Your task to perform on an android device: turn on location history Image 0: 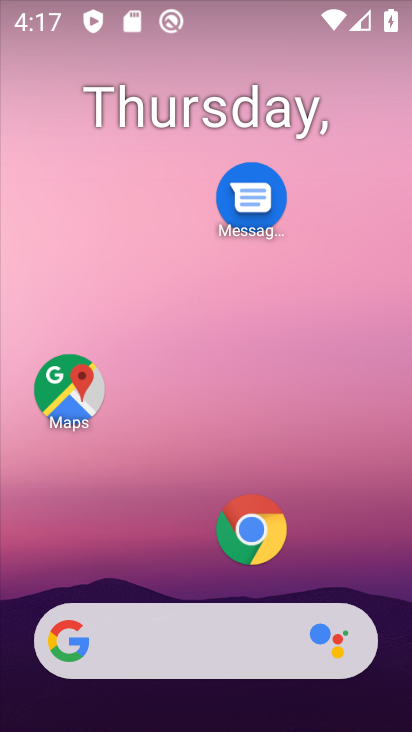
Step 0: drag from (114, 527) to (202, 128)
Your task to perform on an android device: turn on location history Image 1: 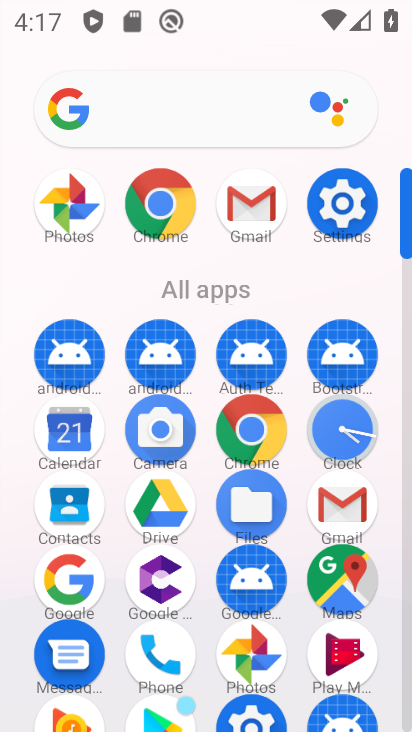
Step 1: click (336, 196)
Your task to perform on an android device: turn on location history Image 2: 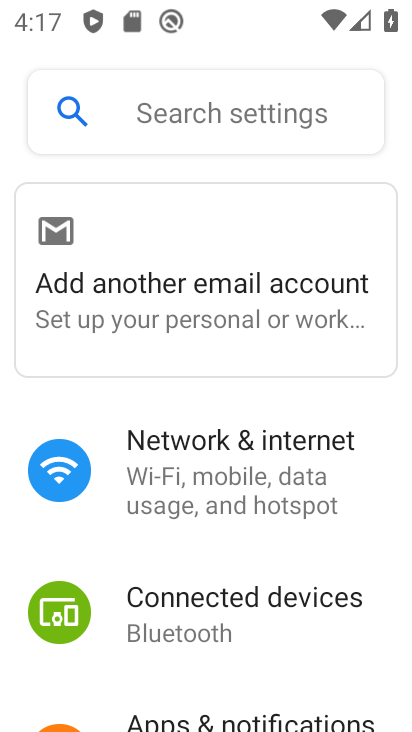
Step 2: drag from (215, 639) to (355, 142)
Your task to perform on an android device: turn on location history Image 3: 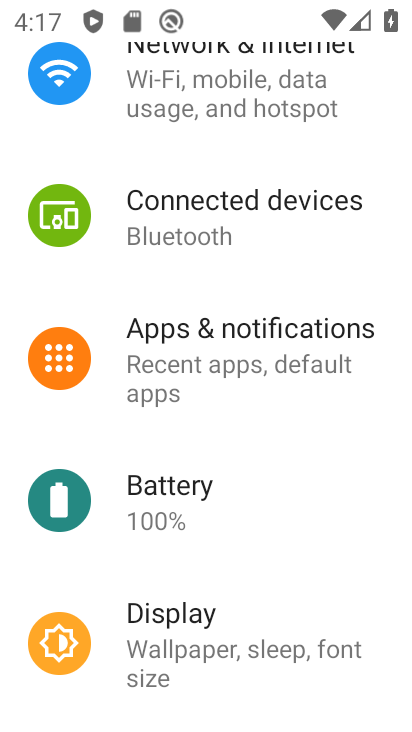
Step 3: drag from (208, 648) to (346, 103)
Your task to perform on an android device: turn on location history Image 4: 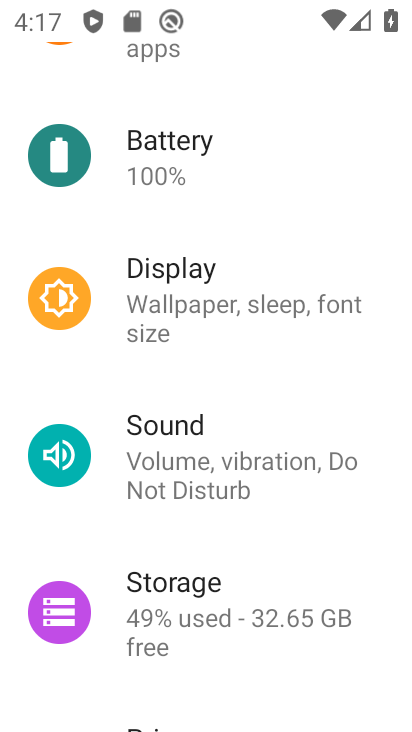
Step 4: drag from (214, 600) to (342, 69)
Your task to perform on an android device: turn on location history Image 5: 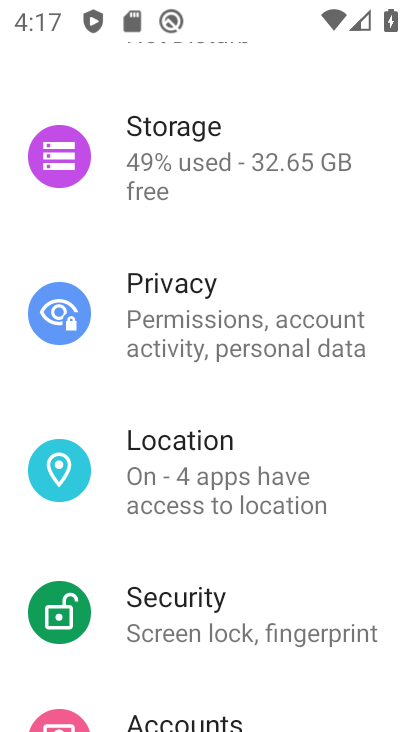
Step 5: click (215, 469)
Your task to perform on an android device: turn on location history Image 6: 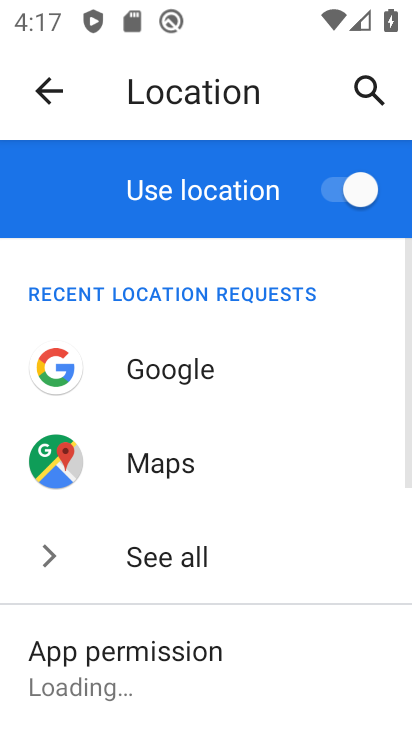
Step 6: drag from (135, 614) to (290, 194)
Your task to perform on an android device: turn on location history Image 7: 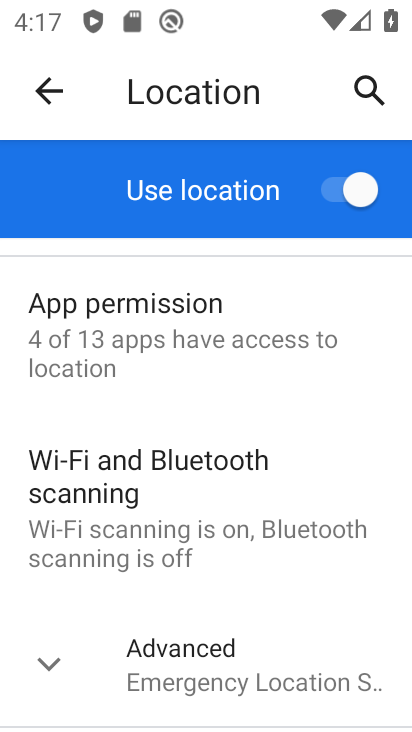
Step 7: click (201, 659)
Your task to perform on an android device: turn on location history Image 8: 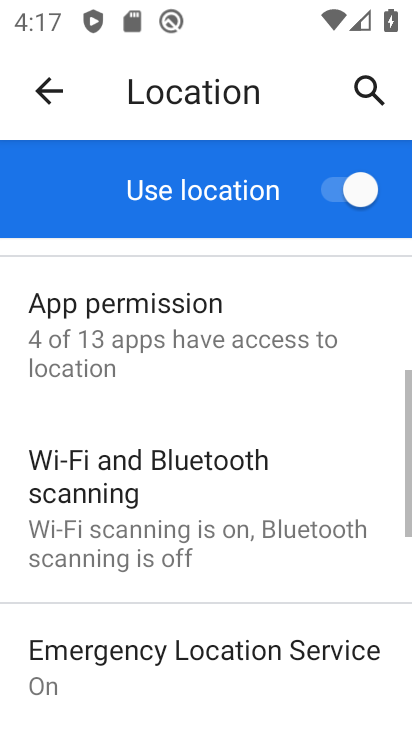
Step 8: drag from (204, 611) to (253, 141)
Your task to perform on an android device: turn on location history Image 9: 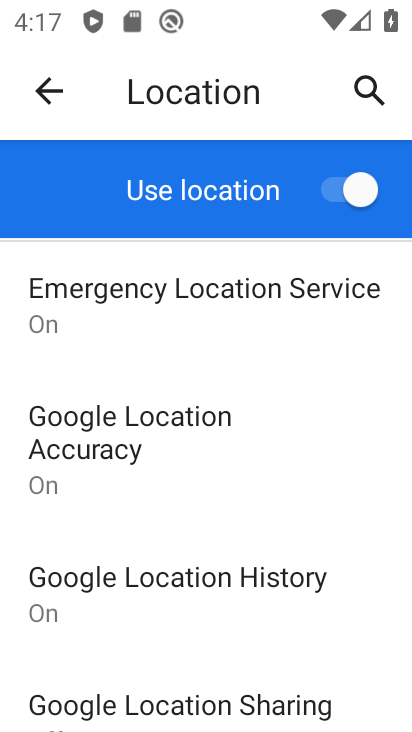
Step 9: click (161, 593)
Your task to perform on an android device: turn on location history Image 10: 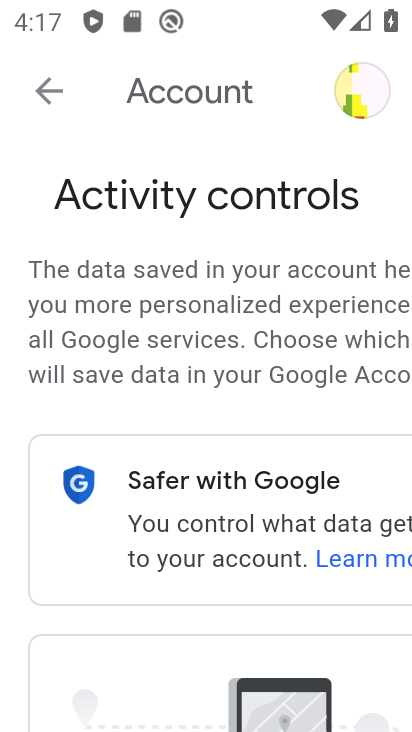
Step 10: drag from (177, 602) to (266, 74)
Your task to perform on an android device: turn on location history Image 11: 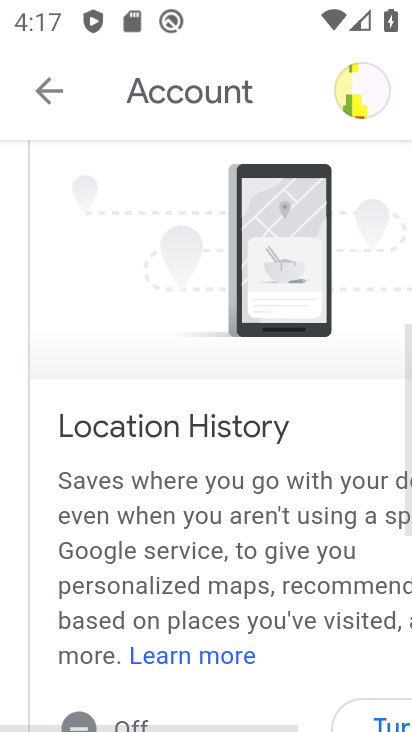
Step 11: drag from (287, 582) to (180, 250)
Your task to perform on an android device: turn on location history Image 12: 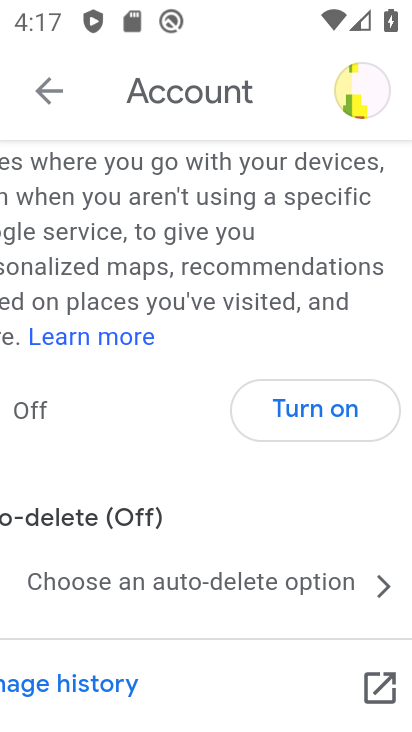
Step 12: click (323, 411)
Your task to perform on an android device: turn on location history Image 13: 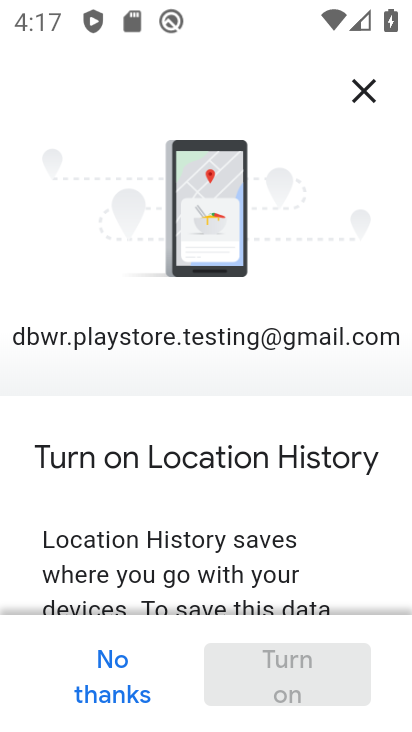
Step 13: drag from (266, 616) to (339, 101)
Your task to perform on an android device: turn on location history Image 14: 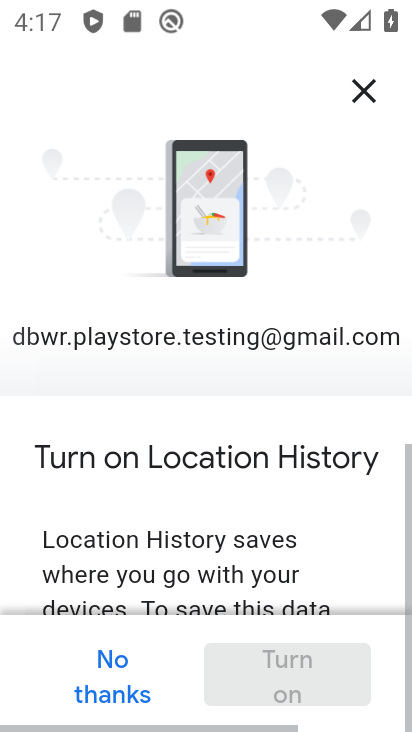
Step 14: drag from (198, 498) to (296, 50)
Your task to perform on an android device: turn on location history Image 15: 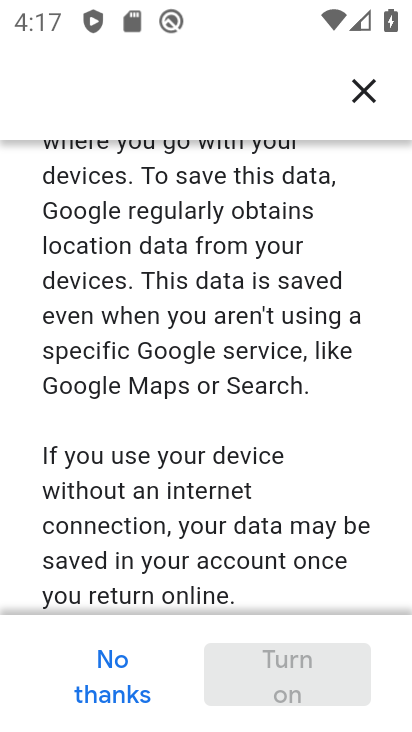
Step 15: drag from (225, 504) to (274, 146)
Your task to perform on an android device: turn on location history Image 16: 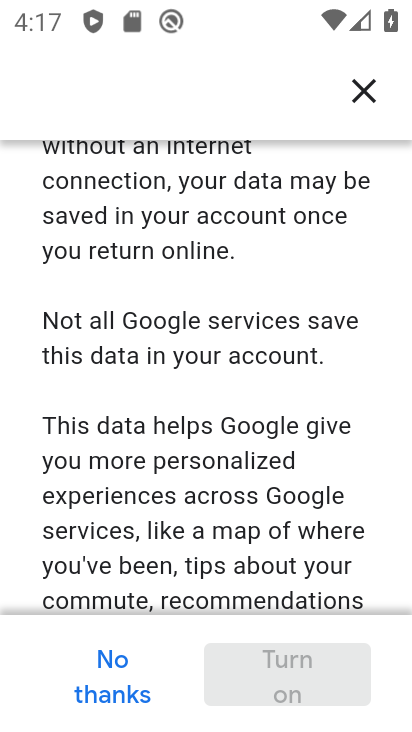
Step 16: drag from (214, 577) to (285, 135)
Your task to perform on an android device: turn on location history Image 17: 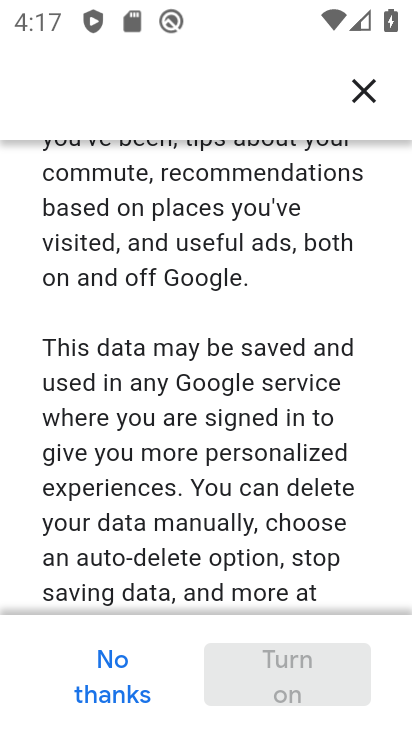
Step 17: drag from (208, 539) to (264, 80)
Your task to perform on an android device: turn on location history Image 18: 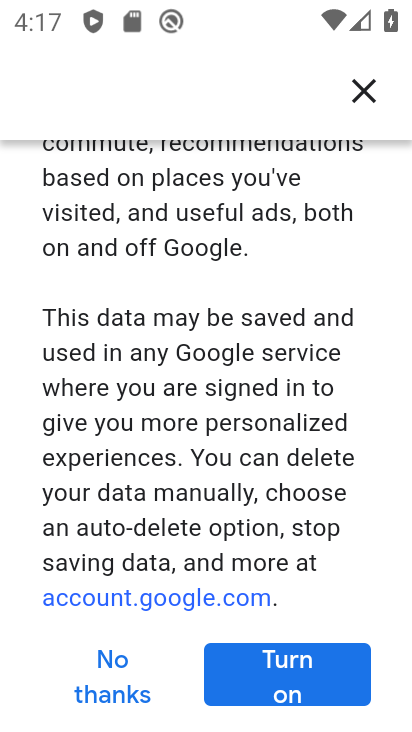
Step 18: drag from (169, 546) to (245, 271)
Your task to perform on an android device: turn on location history Image 19: 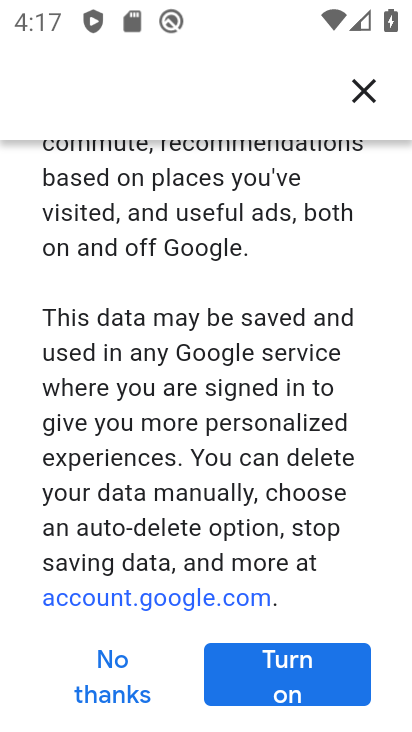
Step 19: click (264, 676)
Your task to perform on an android device: turn on location history Image 20: 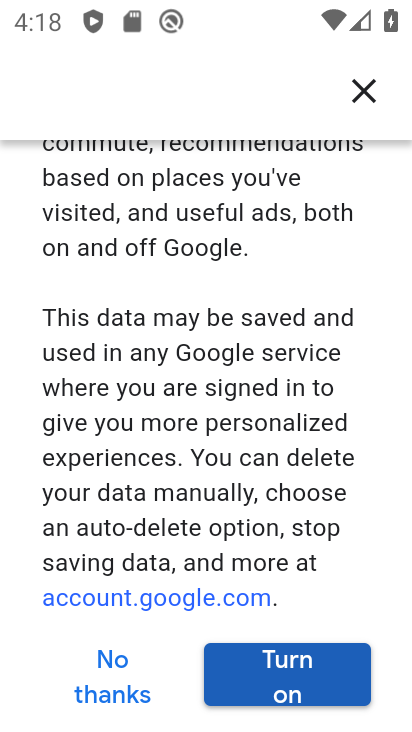
Step 20: click (280, 682)
Your task to perform on an android device: turn on location history Image 21: 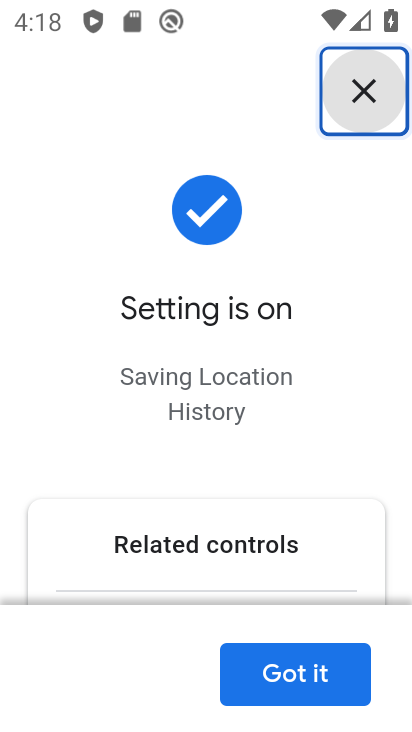
Step 21: click (292, 689)
Your task to perform on an android device: turn on location history Image 22: 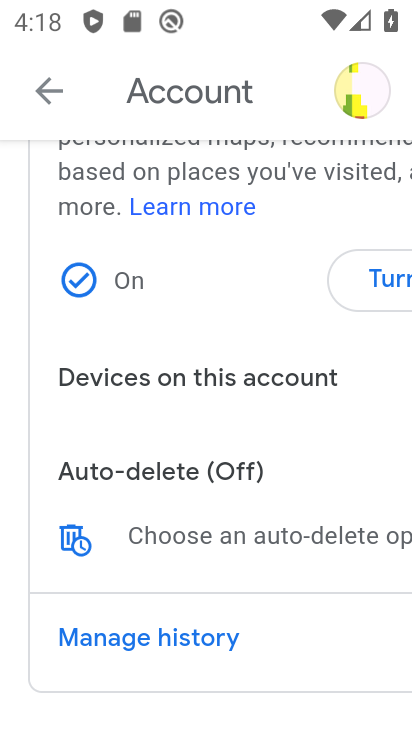
Step 22: task complete